Your task to perform on an android device: Open calendar and show me the second week of next month Image 0: 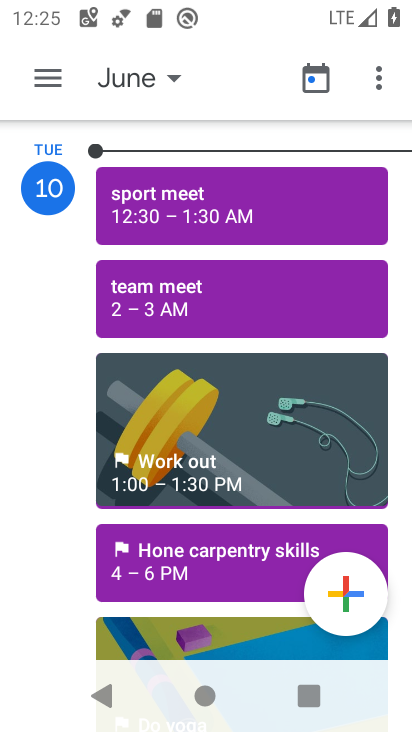
Step 0: press home button
Your task to perform on an android device: Open calendar and show me the second week of next month Image 1: 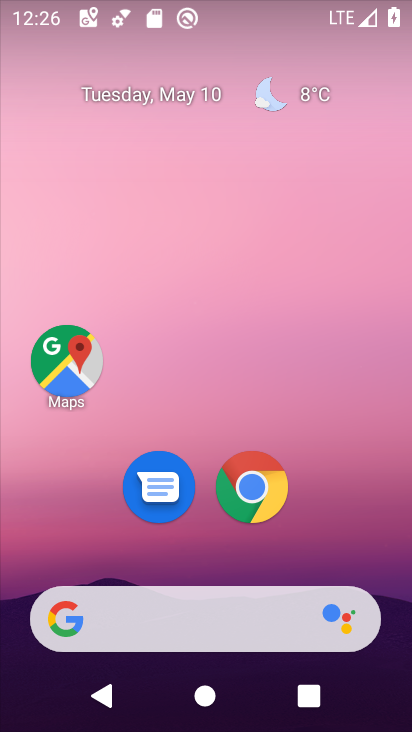
Step 1: drag from (211, 559) to (253, 8)
Your task to perform on an android device: Open calendar and show me the second week of next month Image 2: 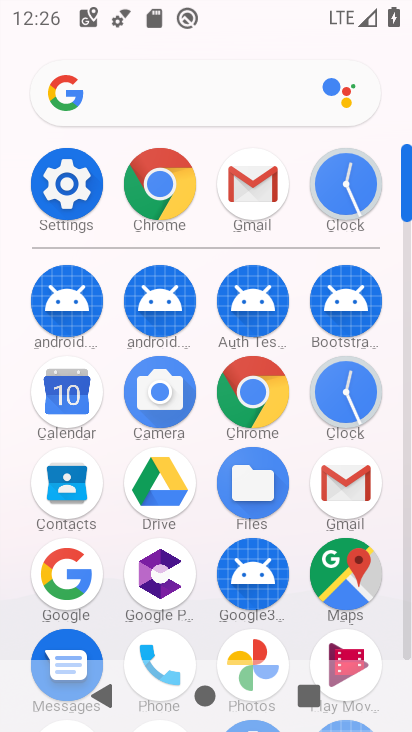
Step 2: click (66, 392)
Your task to perform on an android device: Open calendar and show me the second week of next month Image 3: 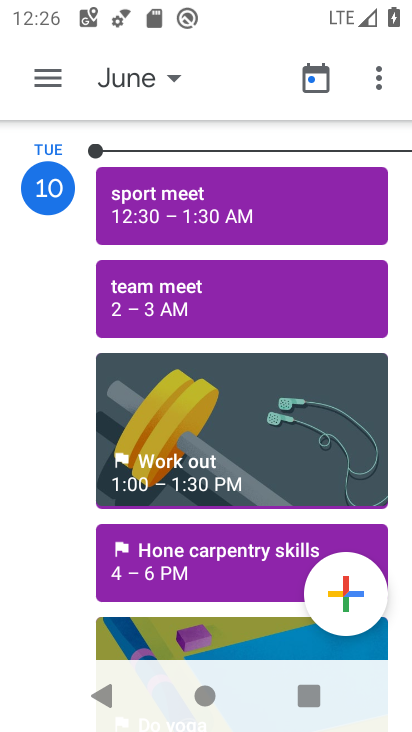
Step 3: click (55, 80)
Your task to perform on an android device: Open calendar and show me the second week of next month Image 4: 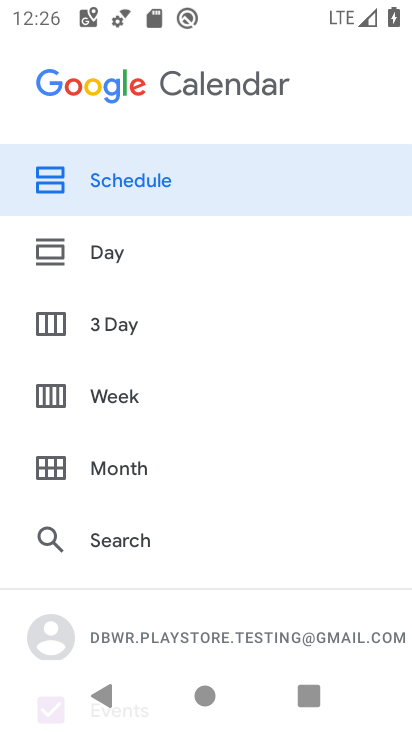
Step 4: click (72, 390)
Your task to perform on an android device: Open calendar and show me the second week of next month Image 5: 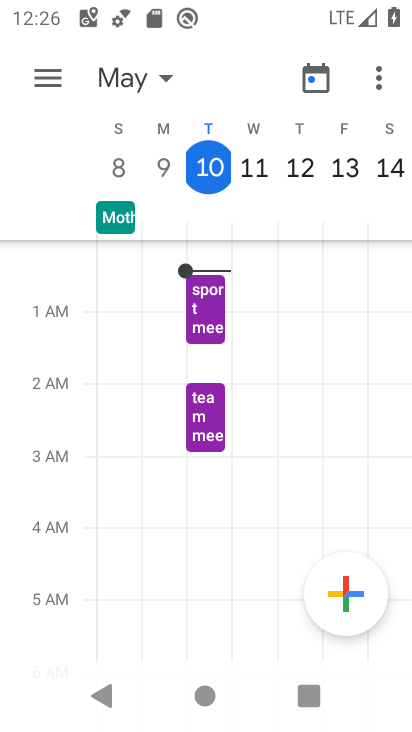
Step 5: drag from (394, 166) to (77, 138)
Your task to perform on an android device: Open calendar and show me the second week of next month Image 6: 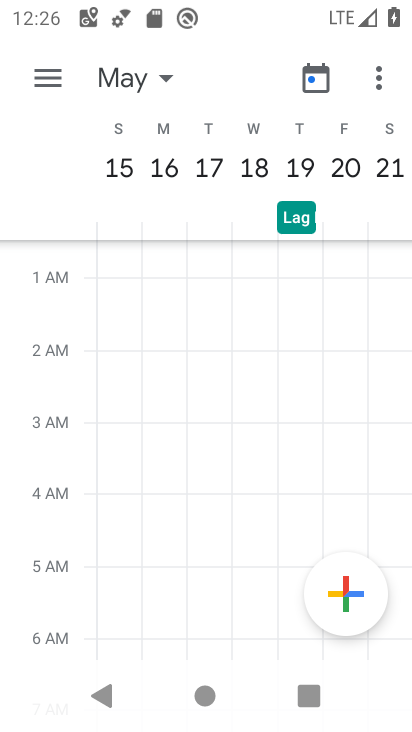
Step 6: drag from (382, 164) to (105, 142)
Your task to perform on an android device: Open calendar and show me the second week of next month Image 7: 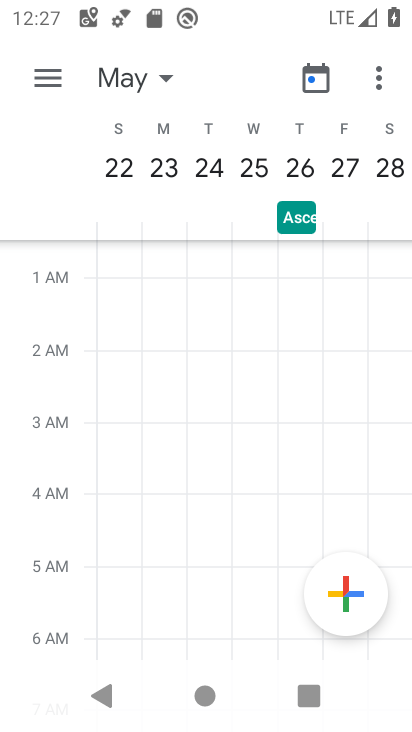
Step 7: drag from (392, 168) to (160, 145)
Your task to perform on an android device: Open calendar and show me the second week of next month Image 8: 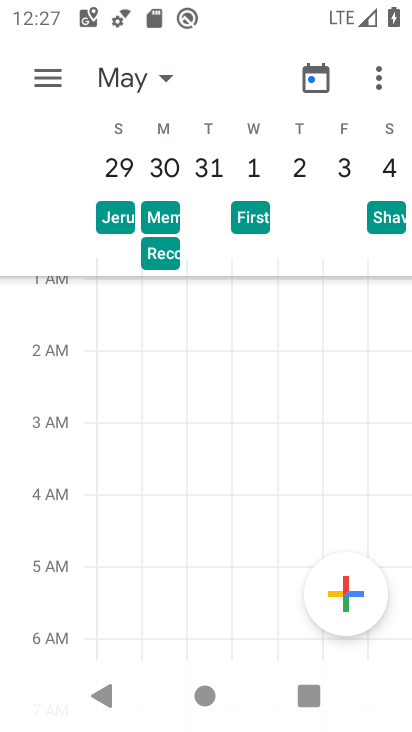
Step 8: drag from (389, 166) to (48, 153)
Your task to perform on an android device: Open calendar and show me the second week of next month Image 9: 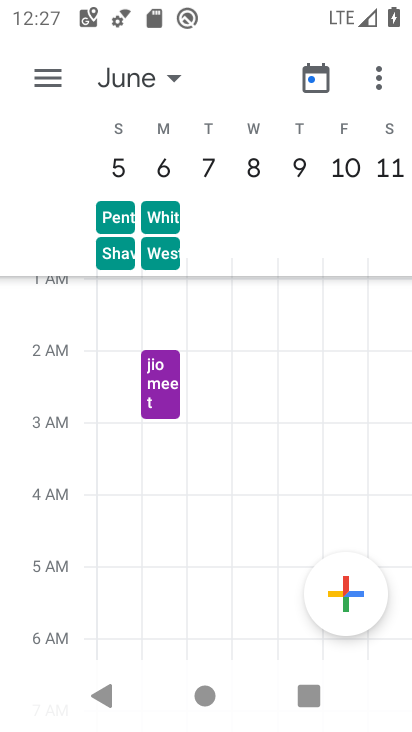
Step 9: click (112, 164)
Your task to perform on an android device: Open calendar and show me the second week of next month Image 10: 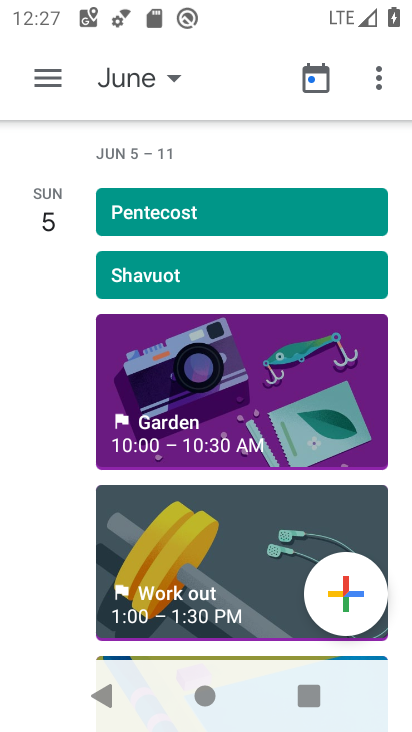
Step 10: task complete